Your task to perform on an android device: What's the weather? Image 0: 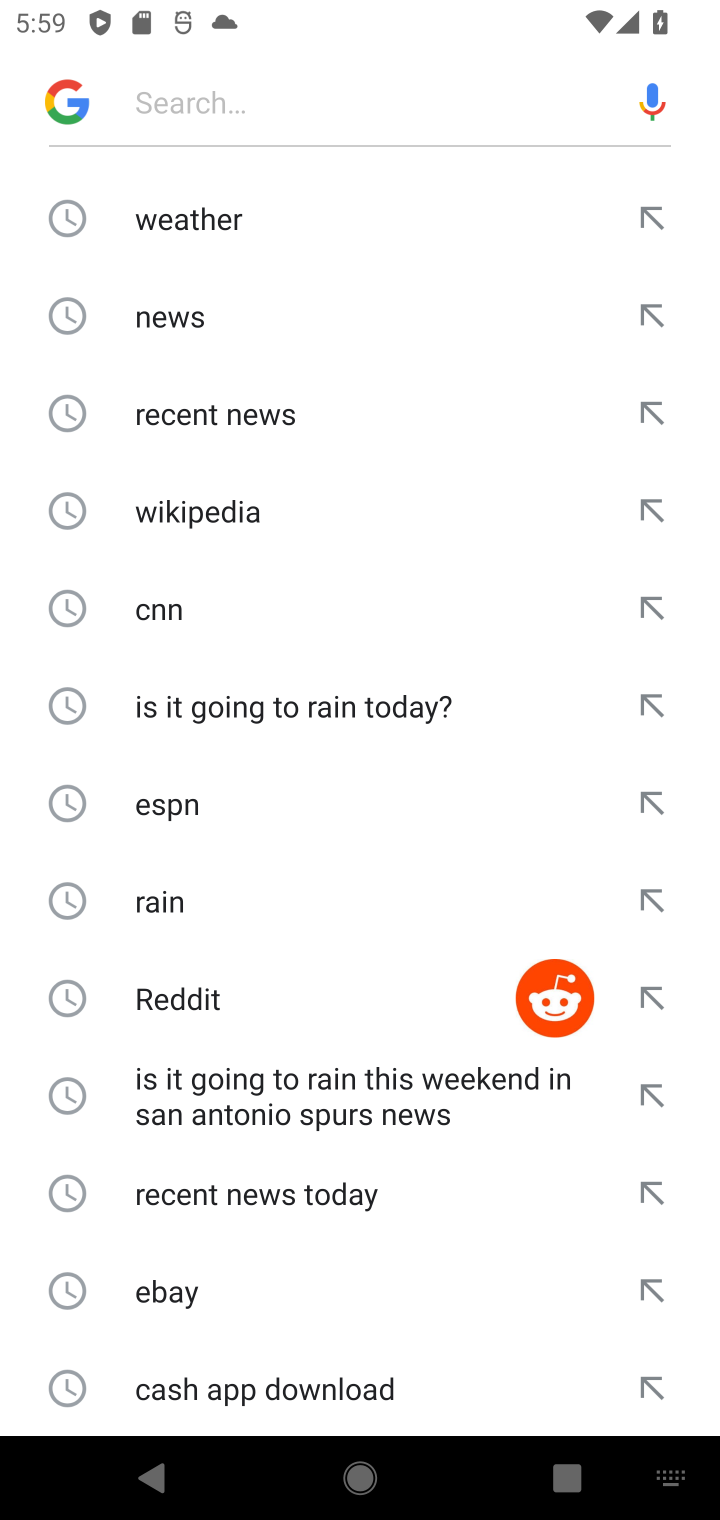
Step 0: click (180, 219)
Your task to perform on an android device: What's the weather? Image 1: 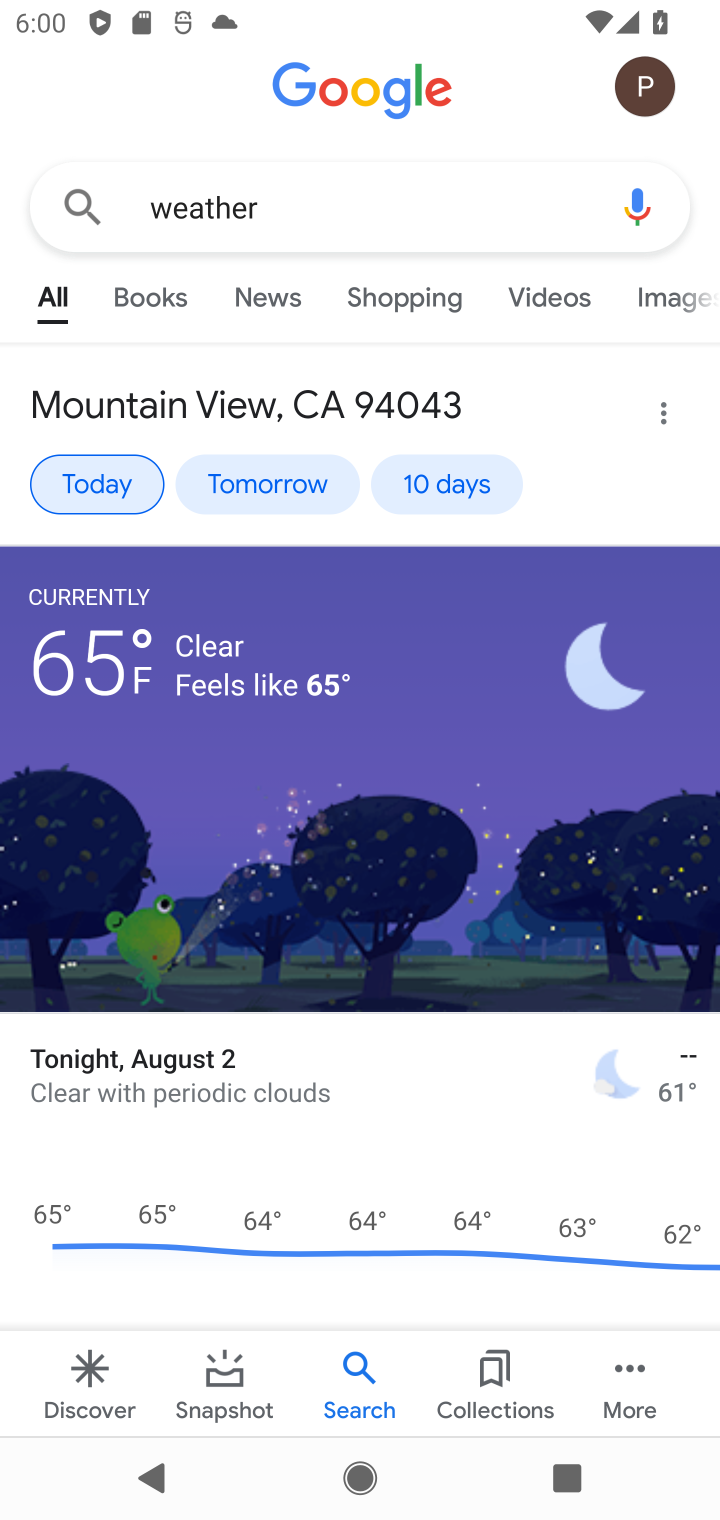
Step 1: task complete